Your task to perform on an android device: Open Google Chrome and click the shortcut for Amazon.com Image 0: 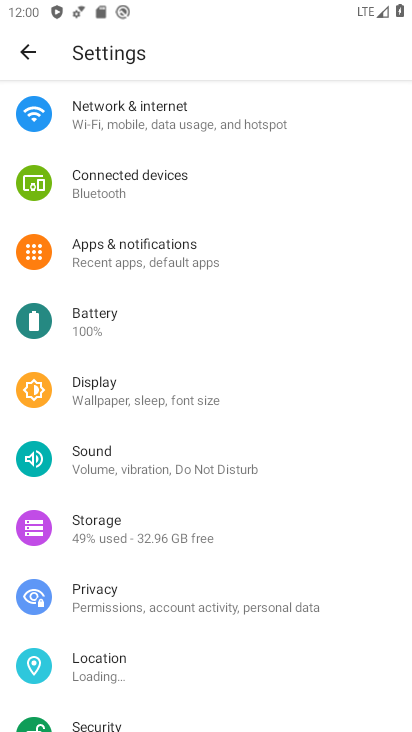
Step 0: press back button
Your task to perform on an android device: Open Google Chrome and click the shortcut for Amazon.com Image 1: 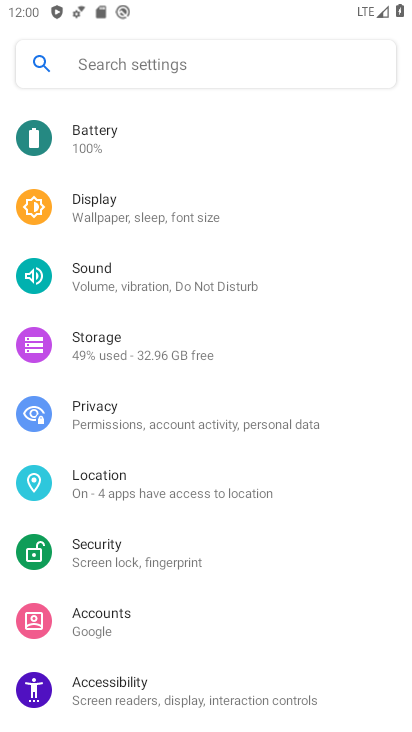
Step 1: press back button
Your task to perform on an android device: Open Google Chrome and click the shortcut for Amazon.com Image 2: 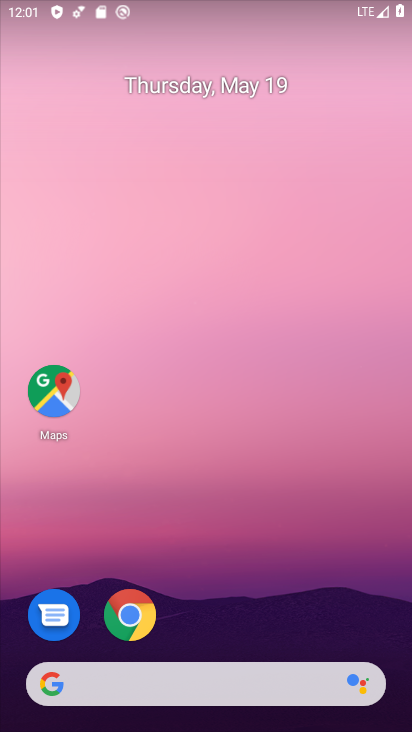
Step 2: drag from (300, 570) to (291, 166)
Your task to perform on an android device: Open Google Chrome and click the shortcut for Amazon.com Image 3: 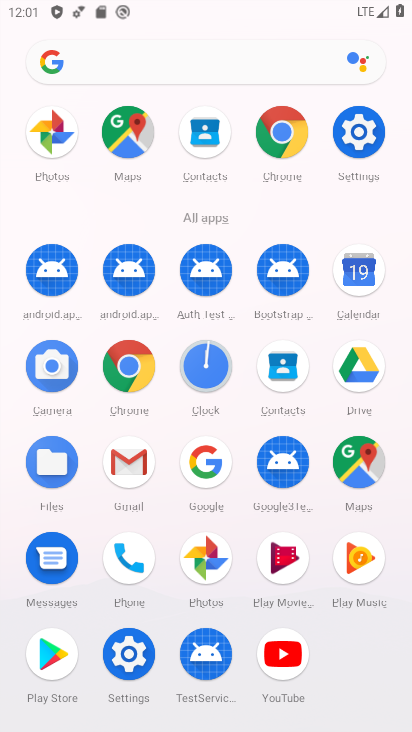
Step 3: click (131, 361)
Your task to perform on an android device: Open Google Chrome and click the shortcut for Amazon.com Image 4: 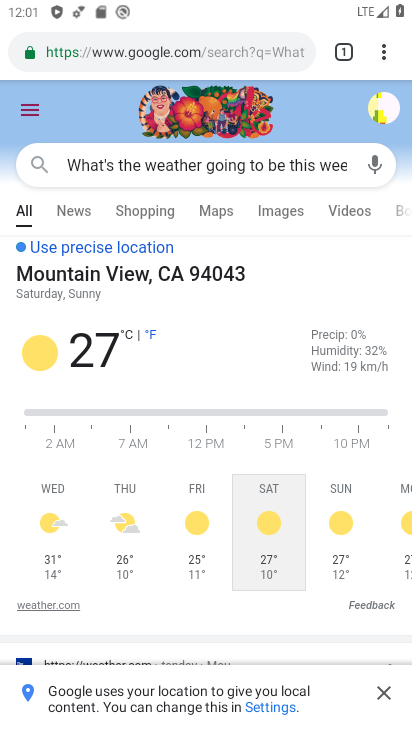
Step 4: click (146, 55)
Your task to perform on an android device: Open Google Chrome and click the shortcut for Amazon.com Image 5: 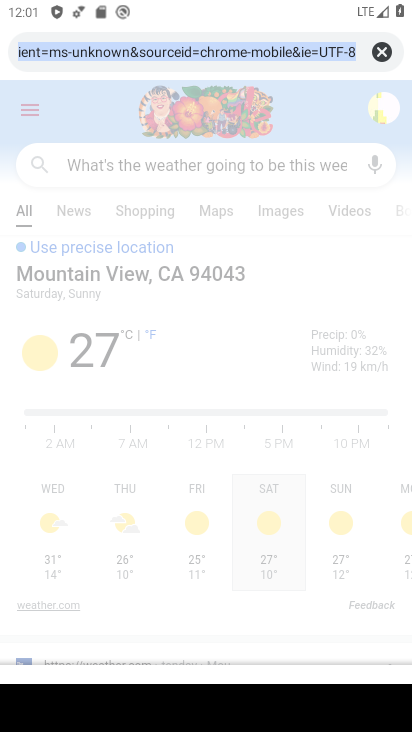
Step 5: click (376, 52)
Your task to perform on an android device: Open Google Chrome and click the shortcut for Amazon.com Image 6: 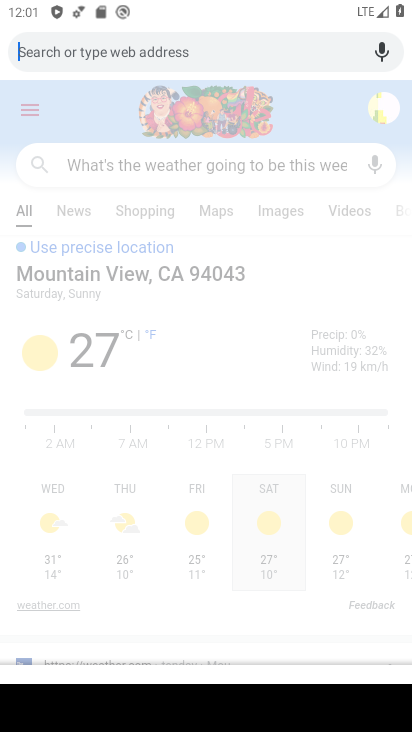
Step 6: type "Amazon.com"
Your task to perform on an android device: Open Google Chrome and click the shortcut for Amazon.com Image 7: 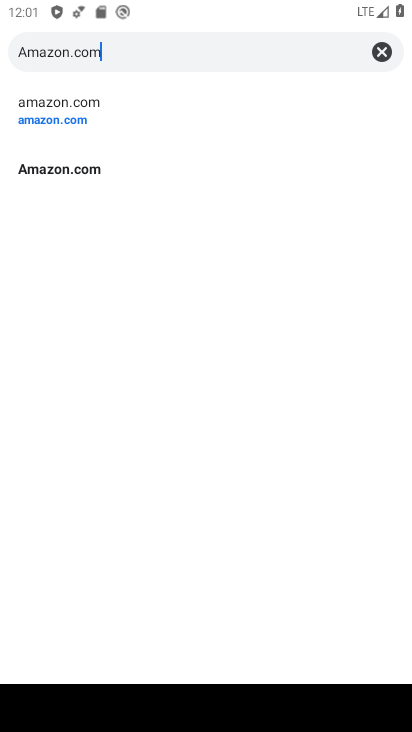
Step 7: type ""
Your task to perform on an android device: Open Google Chrome and click the shortcut for Amazon.com Image 8: 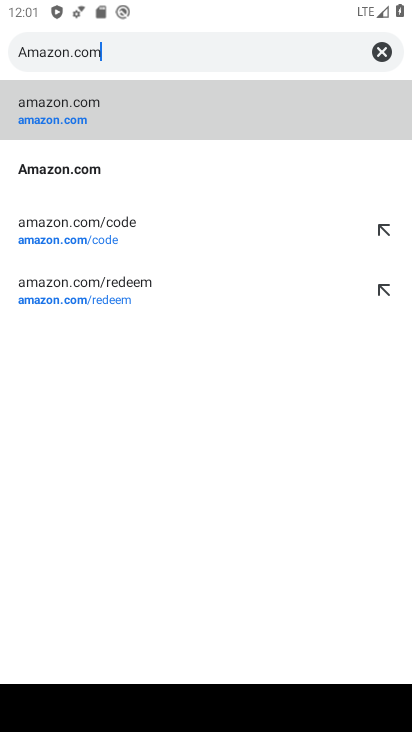
Step 8: click (133, 89)
Your task to perform on an android device: Open Google Chrome and click the shortcut for Amazon.com Image 9: 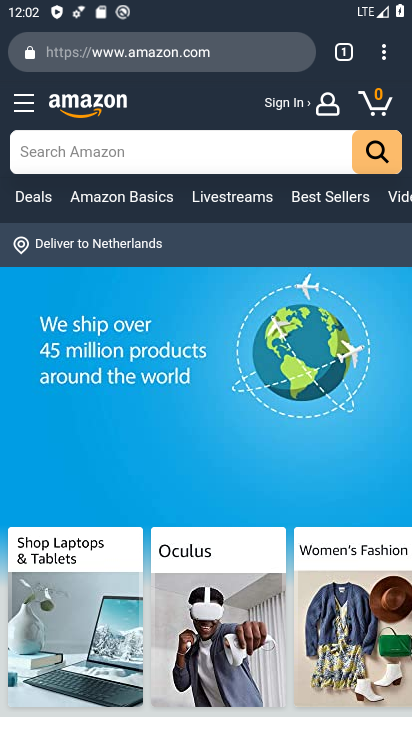
Step 9: task complete